Your task to perform on an android device: What's the weather? Image 0: 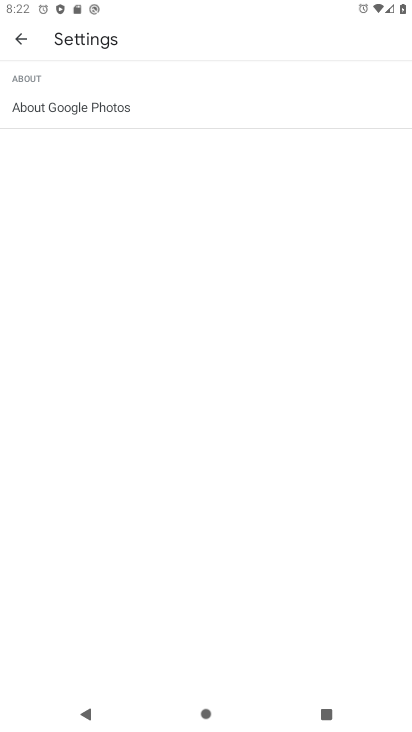
Step 0: press home button
Your task to perform on an android device: What's the weather? Image 1: 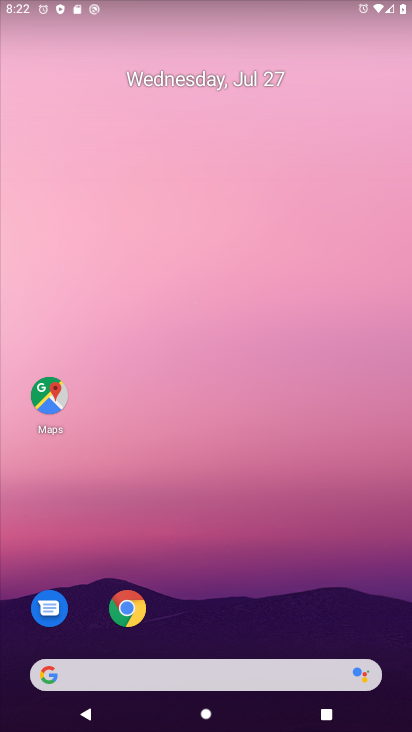
Step 1: click (131, 677)
Your task to perform on an android device: What's the weather? Image 2: 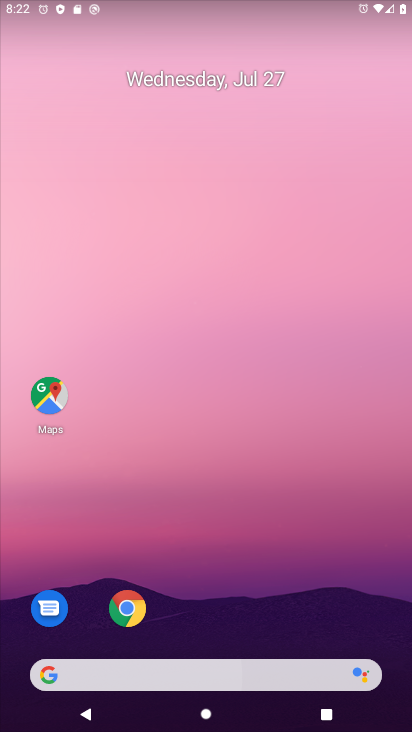
Step 2: click (126, 673)
Your task to perform on an android device: What's the weather? Image 3: 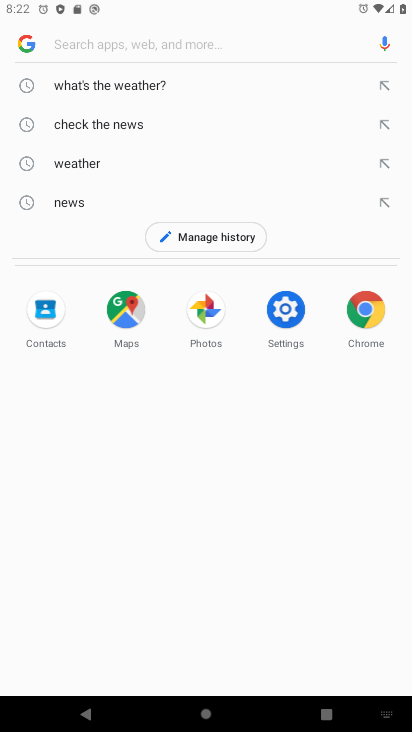
Step 3: type "What's the weather?"
Your task to perform on an android device: What's the weather? Image 4: 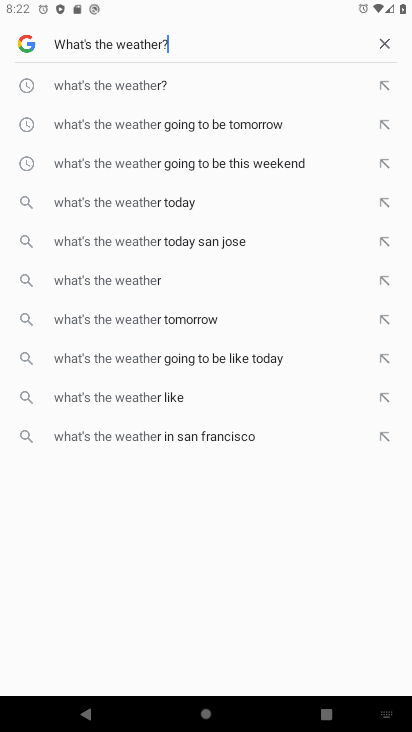
Step 4: press enter
Your task to perform on an android device: What's the weather? Image 5: 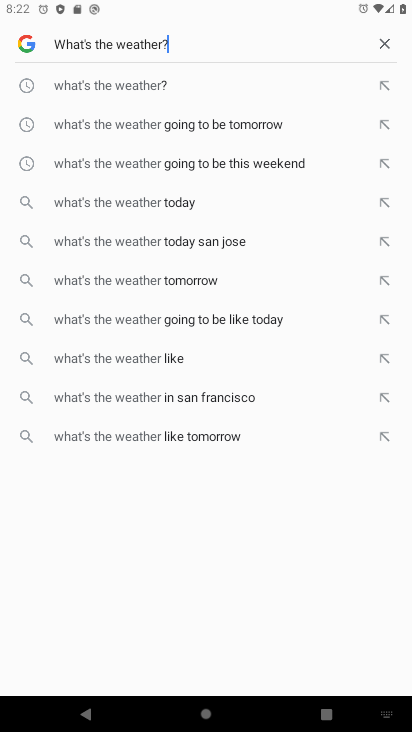
Step 5: type ""
Your task to perform on an android device: What's the weather? Image 6: 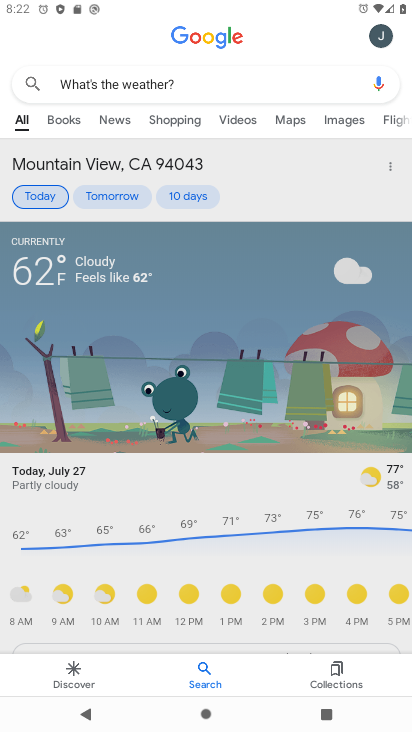
Step 6: task complete